Your task to perform on an android device: open app "DoorDash - Dasher" (install if not already installed) and enter user name: "resistor@inbox.com" and password: "cholera" Image 0: 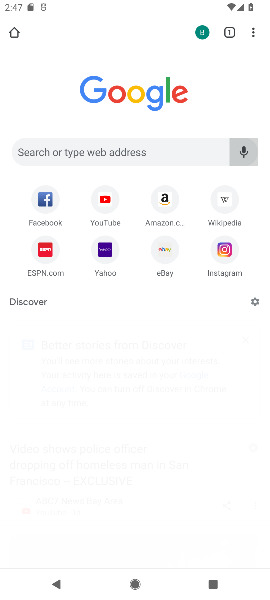
Step 0: press home button
Your task to perform on an android device: open app "DoorDash - Dasher" (install if not already installed) and enter user name: "resistor@inbox.com" and password: "cholera" Image 1: 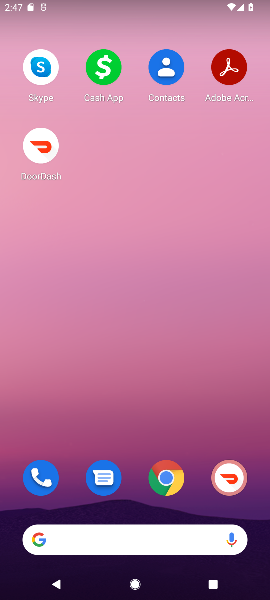
Step 1: press home button
Your task to perform on an android device: open app "DoorDash - Dasher" (install if not already installed) and enter user name: "resistor@inbox.com" and password: "cholera" Image 2: 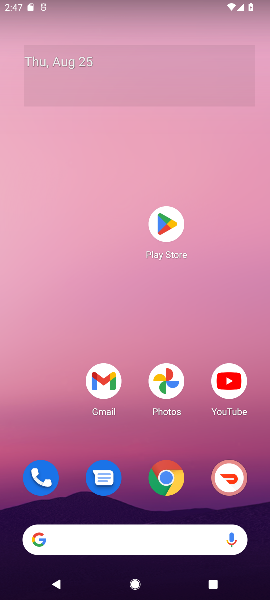
Step 2: click (165, 222)
Your task to perform on an android device: open app "DoorDash - Dasher" (install if not already installed) and enter user name: "resistor@inbox.com" and password: "cholera" Image 3: 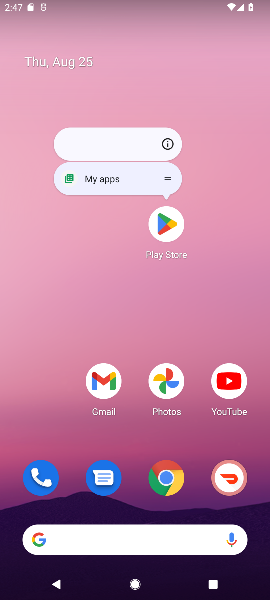
Step 3: click (164, 222)
Your task to perform on an android device: open app "DoorDash - Dasher" (install if not already installed) and enter user name: "resistor@inbox.com" and password: "cholera" Image 4: 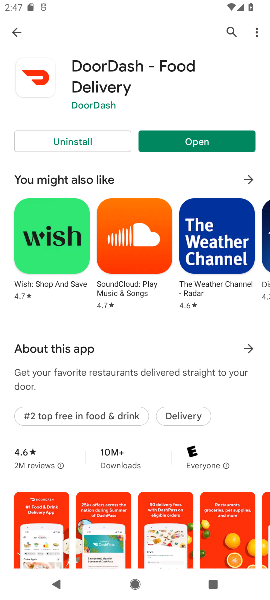
Step 4: click (229, 25)
Your task to perform on an android device: open app "DoorDash - Dasher" (install if not already installed) and enter user name: "resistor@inbox.com" and password: "cholera" Image 5: 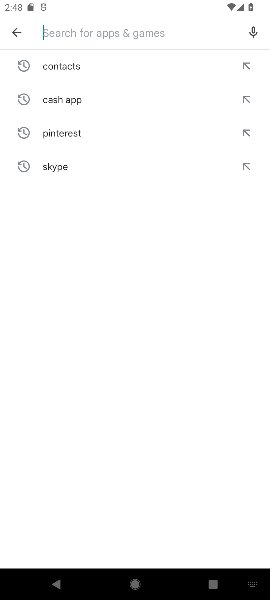
Step 5: type "DoorDash - Dasher"
Your task to perform on an android device: open app "DoorDash - Dasher" (install if not already installed) and enter user name: "resistor@inbox.com" and password: "cholera" Image 6: 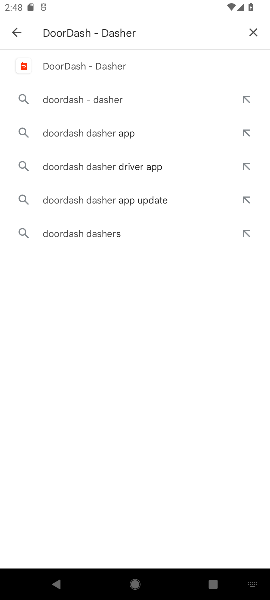
Step 6: click (106, 66)
Your task to perform on an android device: open app "DoorDash - Dasher" (install if not already installed) and enter user name: "resistor@inbox.com" and password: "cholera" Image 7: 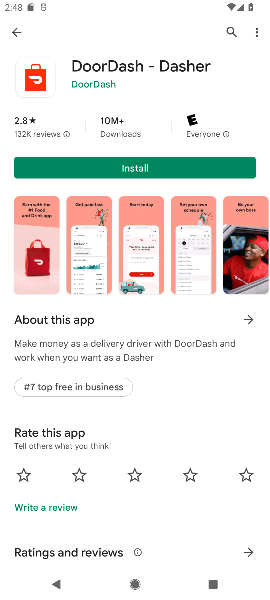
Step 7: click (147, 168)
Your task to perform on an android device: open app "DoorDash - Dasher" (install if not already installed) and enter user name: "resistor@inbox.com" and password: "cholera" Image 8: 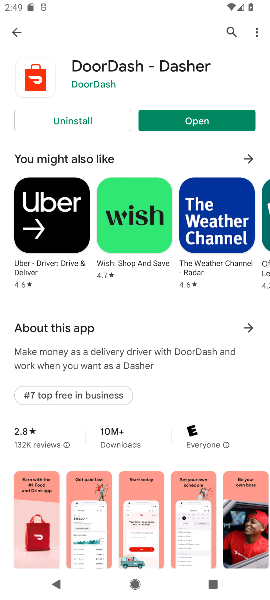
Step 8: click (208, 120)
Your task to perform on an android device: open app "DoorDash - Dasher" (install if not already installed) and enter user name: "resistor@inbox.com" and password: "cholera" Image 9: 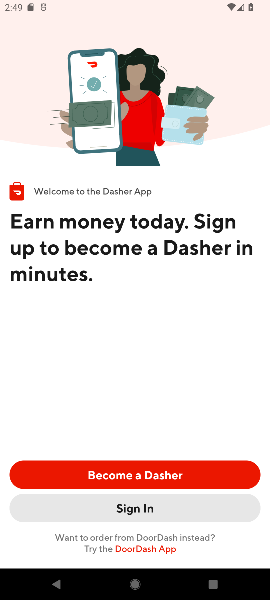
Step 9: click (146, 512)
Your task to perform on an android device: open app "DoorDash - Dasher" (install if not already installed) and enter user name: "resistor@inbox.com" and password: "cholera" Image 10: 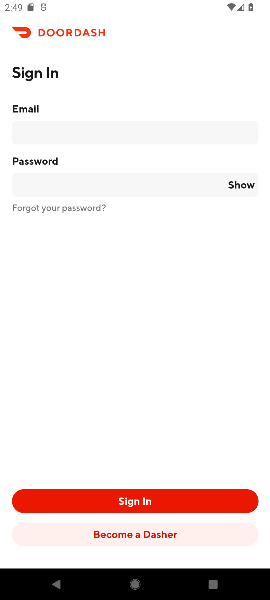
Step 10: click (80, 127)
Your task to perform on an android device: open app "DoorDash - Dasher" (install if not already installed) and enter user name: "resistor@inbox.com" and password: "cholera" Image 11: 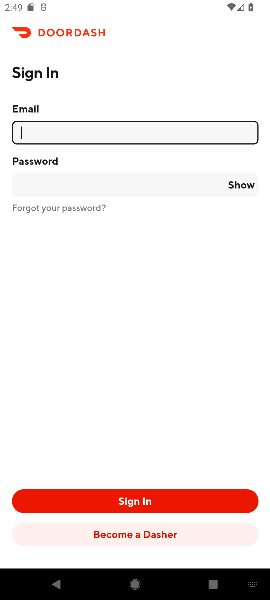
Step 11: type "resistor@inbox.com"
Your task to perform on an android device: open app "DoorDash - Dasher" (install if not already installed) and enter user name: "resistor@inbox.com" and password: "cholera" Image 12: 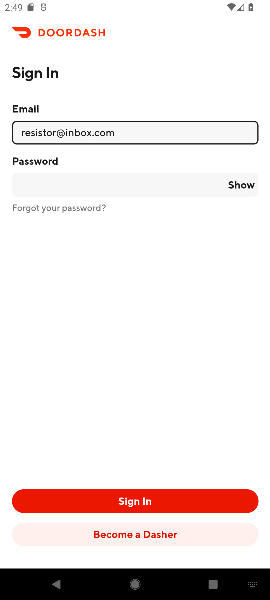
Step 12: click (69, 182)
Your task to perform on an android device: open app "DoorDash - Dasher" (install if not already installed) and enter user name: "resistor@inbox.com" and password: "cholera" Image 13: 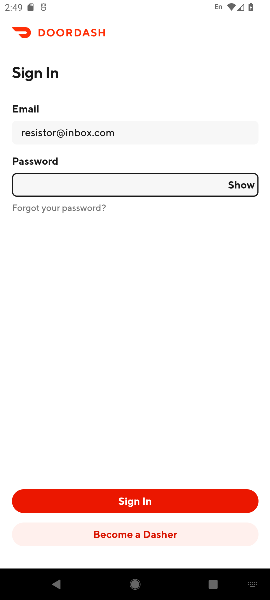
Step 13: type "cholera"
Your task to perform on an android device: open app "DoorDash - Dasher" (install if not already installed) and enter user name: "resistor@inbox.com" and password: "cholera" Image 14: 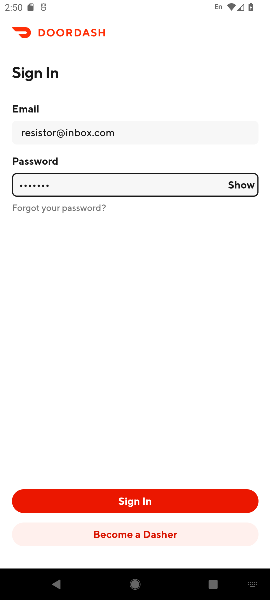
Step 14: task complete